Your task to perform on an android device: all mails in gmail Image 0: 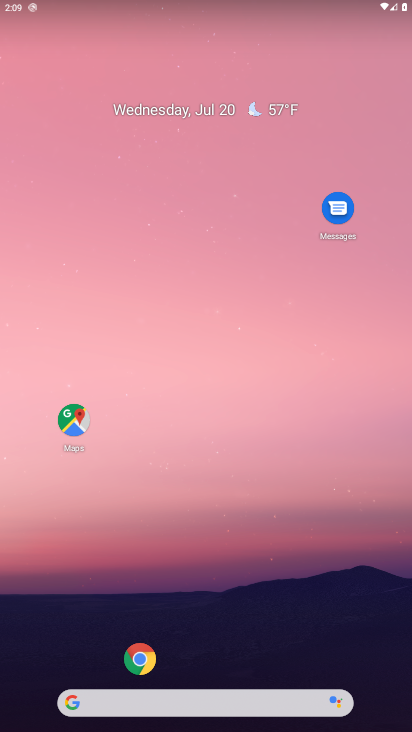
Step 0: drag from (78, 574) to (191, 200)
Your task to perform on an android device: all mails in gmail Image 1: 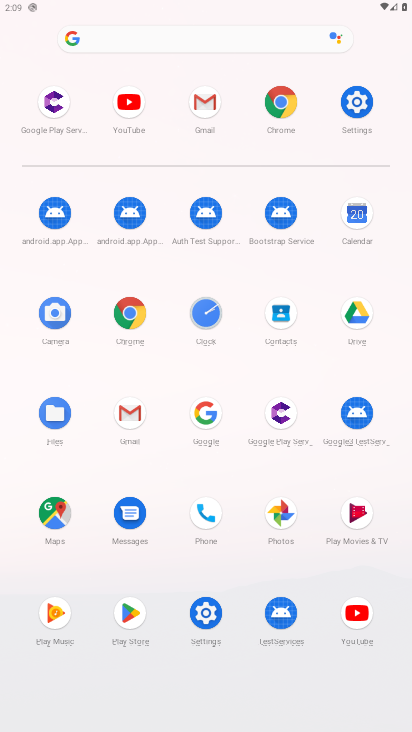
Step 1: click (132, 430)
Your task to perform on an android device: all mails in gmail Image 2: 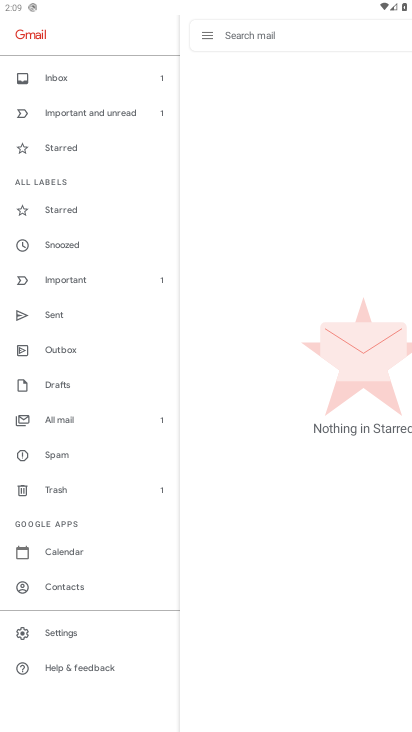
Step 2: click (72, 421)
Your task to perform on an android device: all mails in gmail Image 3: 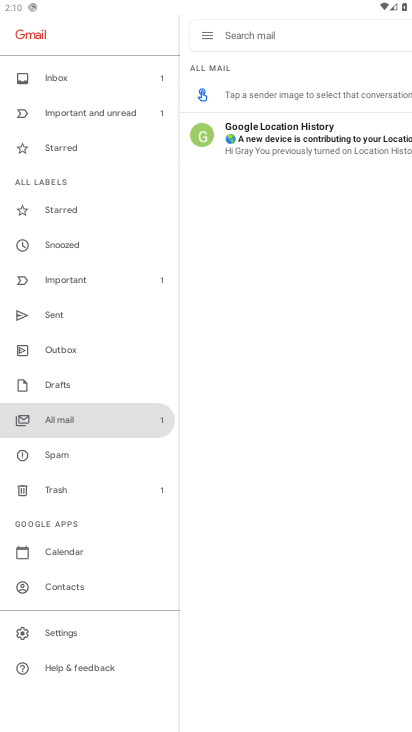
Step 3: task complete